Your task to perform on an android device: refresh tabs in the chrome app Image 0: 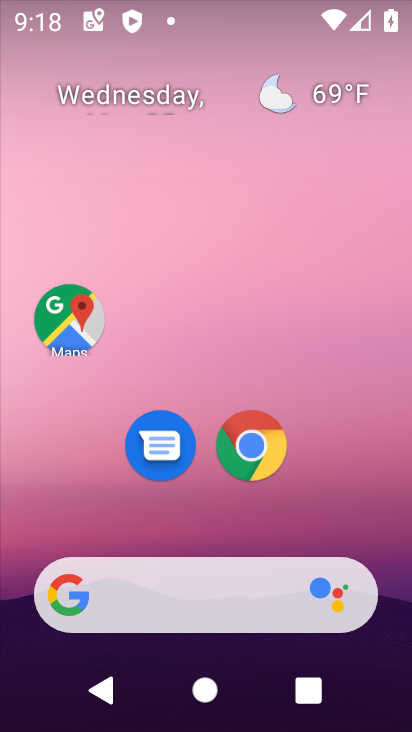
Step 0: drag from (273, 502) to (281, 142)
Your task to perform on an android device: refresh tabs in the chrome app Image 1: 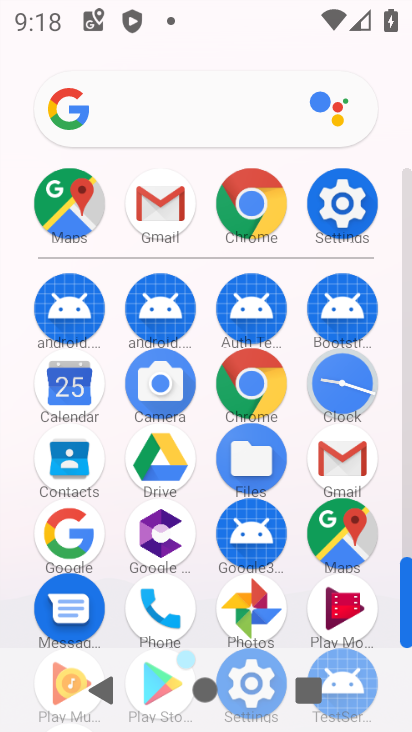
Step 1: click (252, 375)
Your task to perform on an android device: refresh tabs in the chrome app Image 2: 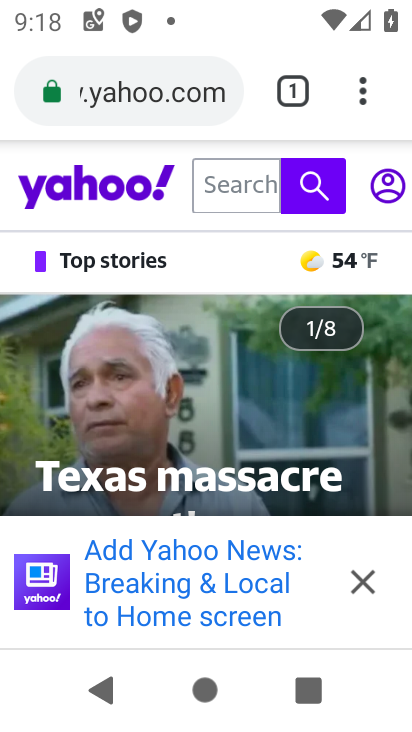
Step 2: task complete